Your task to perform on an android device: move an email to a new category in the gmail app Image 0: 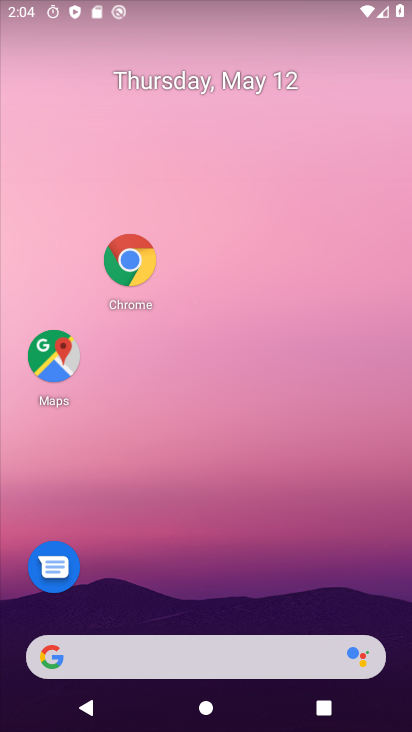
Step 0: drag from (205, 634) to (188, 292)
Your task to perform on an android device: move an email to a new category in the gmail app Image 1: 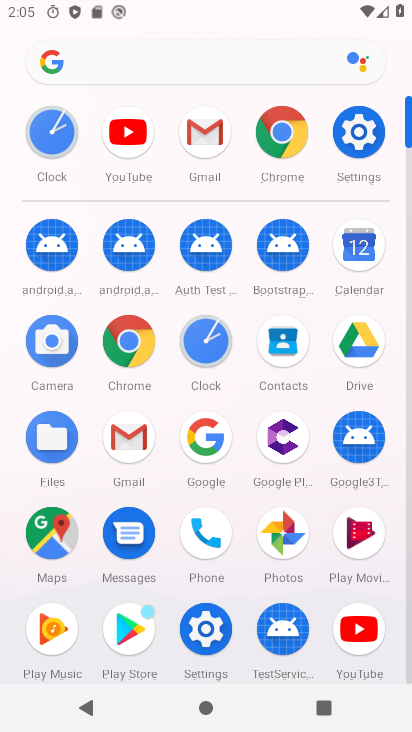
Step 1: click (204, 140)
Your task to perform on an android device: move an email to a new category in the gmail app Image 2: 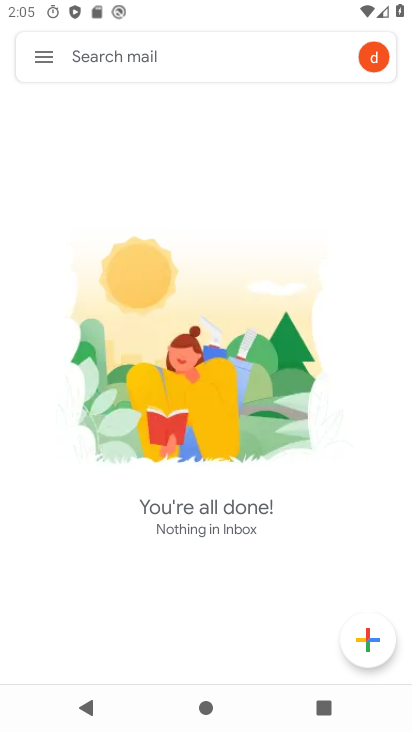
Step 2: task complete